Your task to perform on an android device: find snoozed emails in the gmail app Image 0: 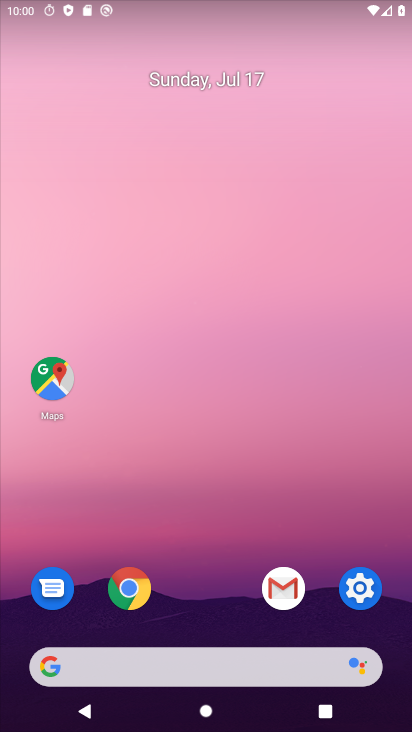
Step 0: drag from (352, 688) to (193, 226)
Your task to perform on an android device: find snoozed emails in the gmail app Image 1: 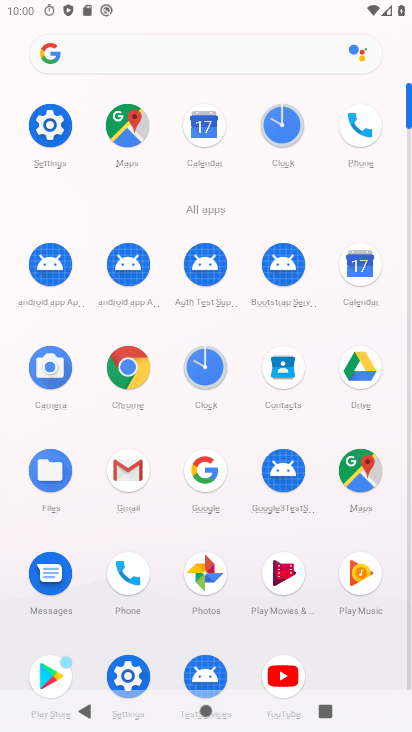
Step 1: click (133, 478)
Your task to perform on an android device: find snoozed emails in the gmail app Image 2: 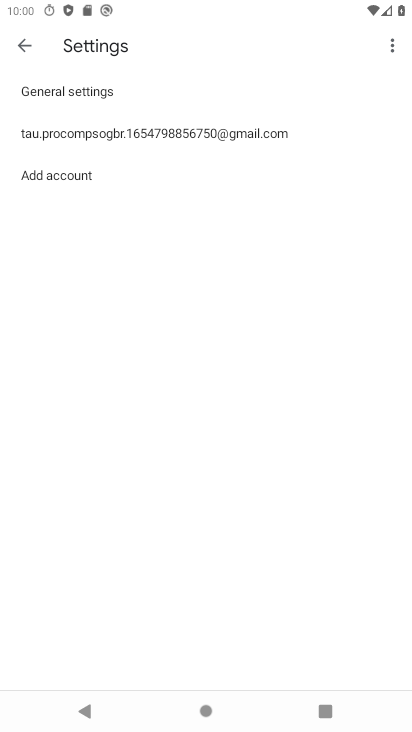
Step 2: click (13, 45)
Your task to perform on an android device: find snoozed emails in the gmail app Image 3: 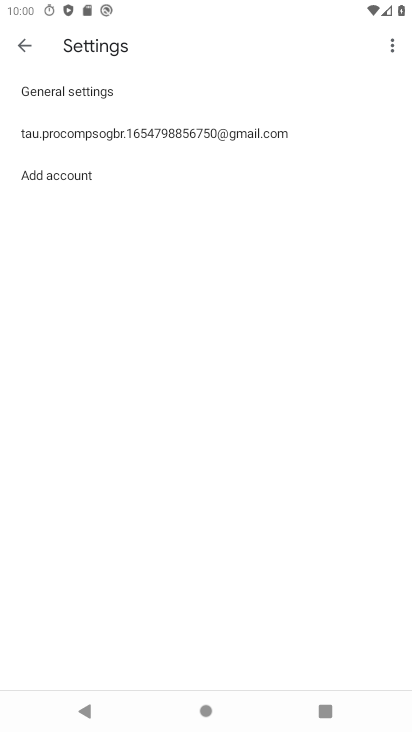
Step 3: click (30, 47)
Your task to perform on an android device: find snoozed emails in the gmail app Image 4: 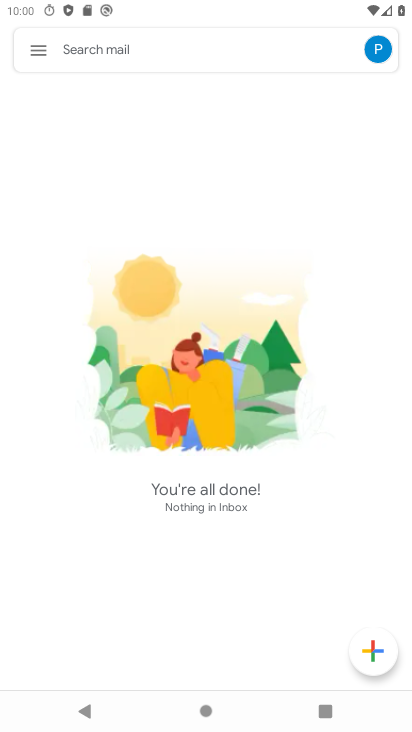
Step 4: click (33, 54)
Your task to perform on an android device: find snoozed emails in the gmail app Image 5: 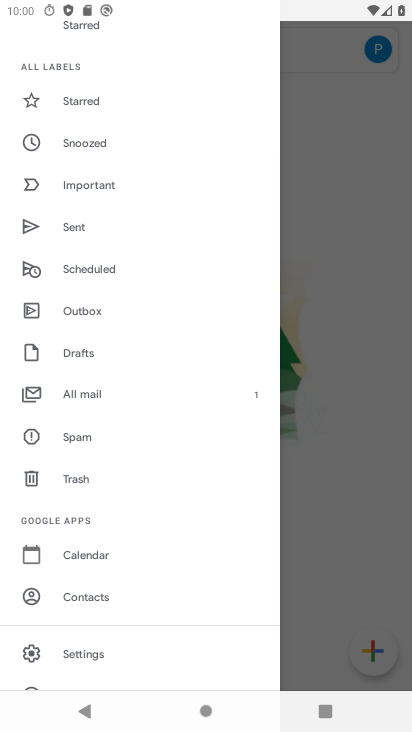
Step 5: click (108, 143)
Your task to perform on an android device: find snoozed emails in the gmail app Image 6: 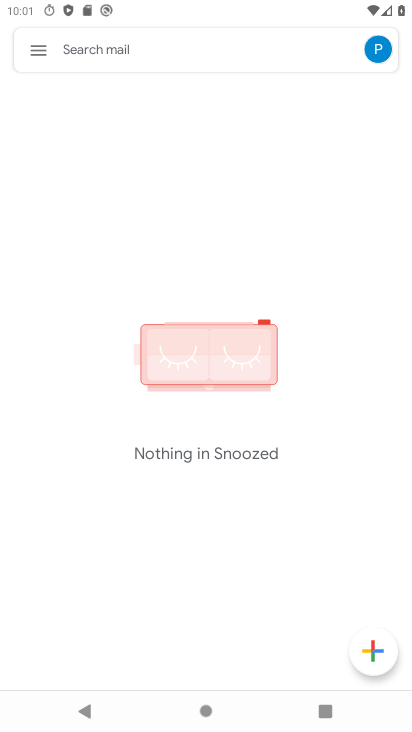
Step 6: task complete